Your task to perform on an android device: Open accessibility settings Image 0: 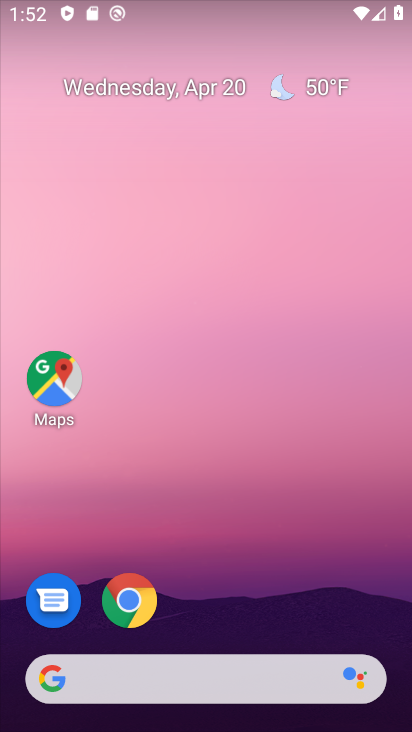
Step 0: drag from (214, 637) to (195, 83)
Your task to perform on an android device: Open accessibility settings Image 1: 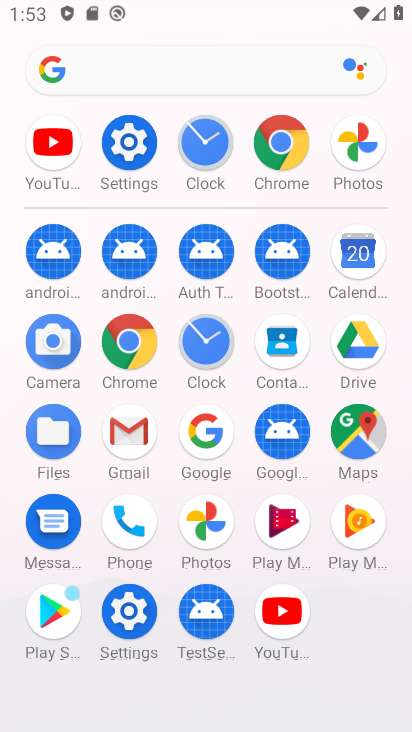
Step 1: click (122, 141)
Your task to perform on an android device: Open accessibility settings Image 2: 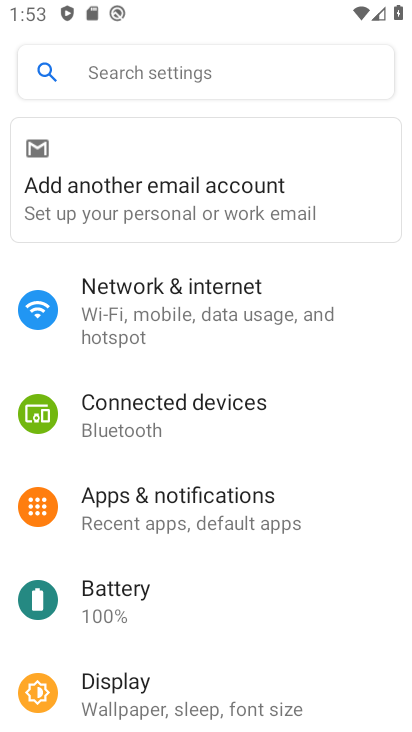
Step 2: drag from (282, 560) to (305, 90)
Your task to perform on an android device: Open accessibility settings Image 3: 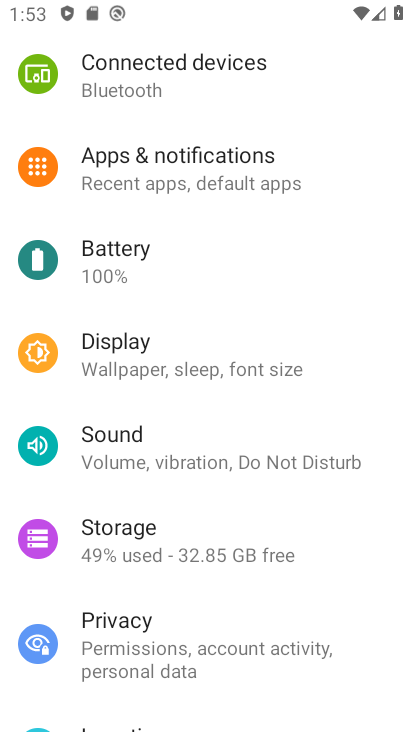
Step 3: drag from (236, 618) to (269, 185)
Your task to perform on an android device: Open accessibility settings Image 4: 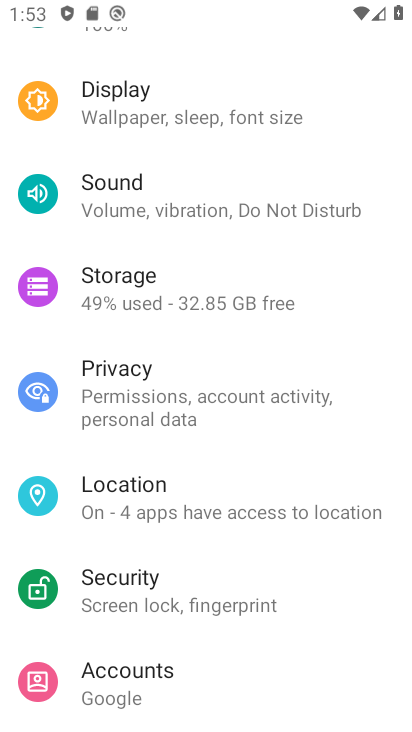
Step 4: drag from (209, 493) to (260, 166)
Your task to perform on an android device: Open accessibility settings Image 5: 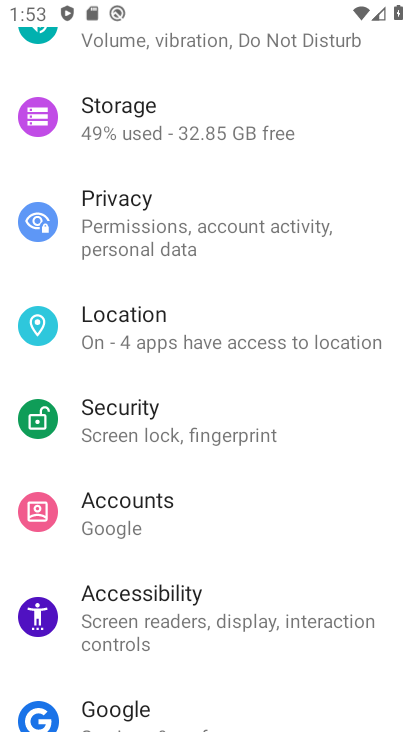
Step 5: click (227, 620)
Your task to perform on an android device: Open accessibility settings Image 6: 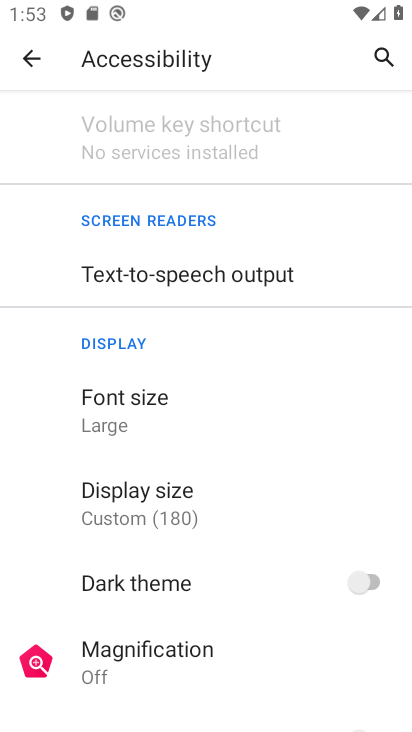
Step 6: task complete